Your task to perform on an android device: set default search engine in the chrome app Image 0: 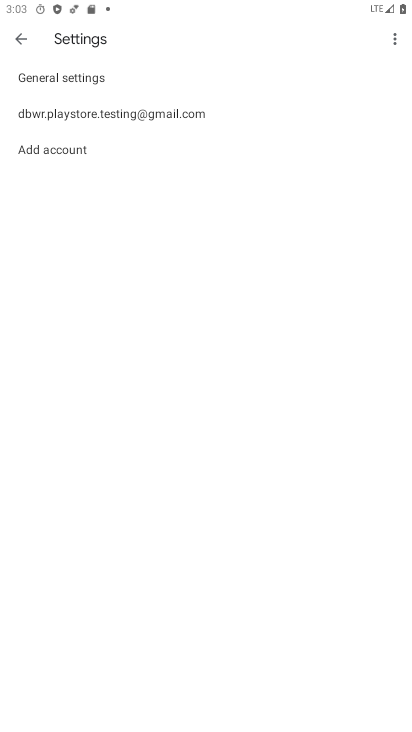
Step 0: drag from (219, 674) to (197, 310)
Your task to perform on an android device: set default search engine in the chrome app Image 1: 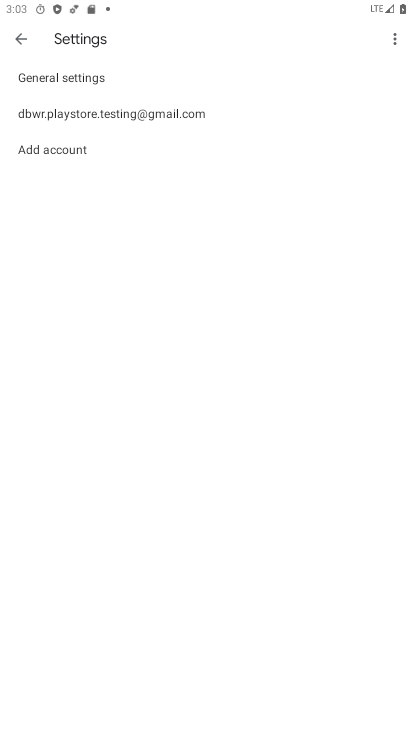
Step 1: press home button
Your task to perform on an android device: set default search engine in the chrome app Image 2: 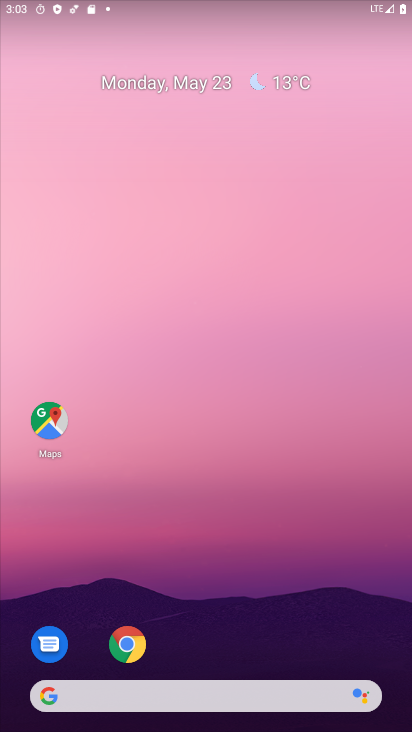
Step 2: click (134, 635)
Your task to perform on an android device: set default search engine in the chrome app Image 3: 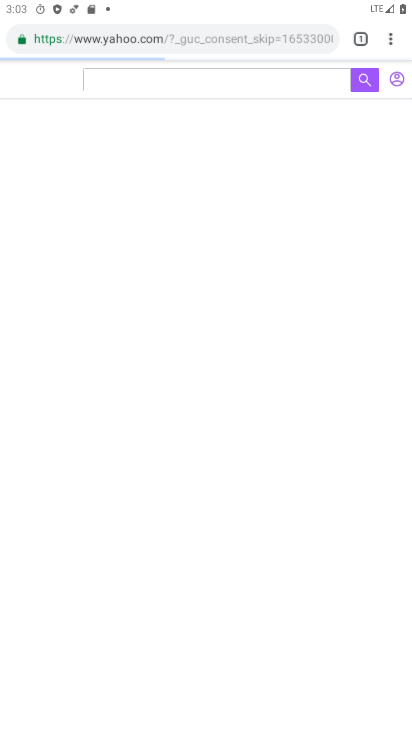
Step 3: click (393, 36)
Your task to perform on an android device: set default search engine in the chrome app Image 4: 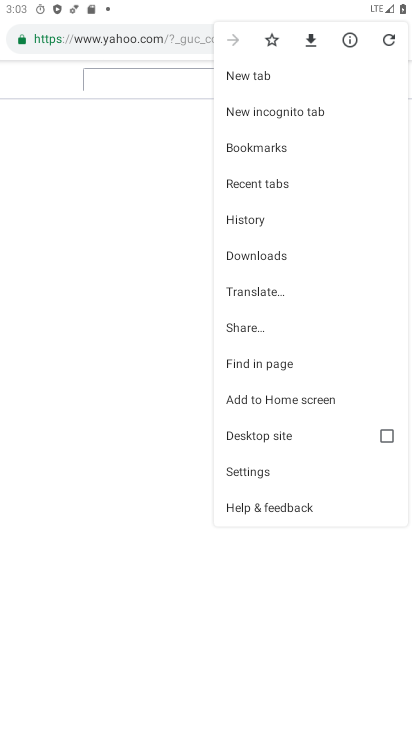
Step 4: click (255, 483)
Your task to perform on an android device: set default search engine in the chrome app Image 5: 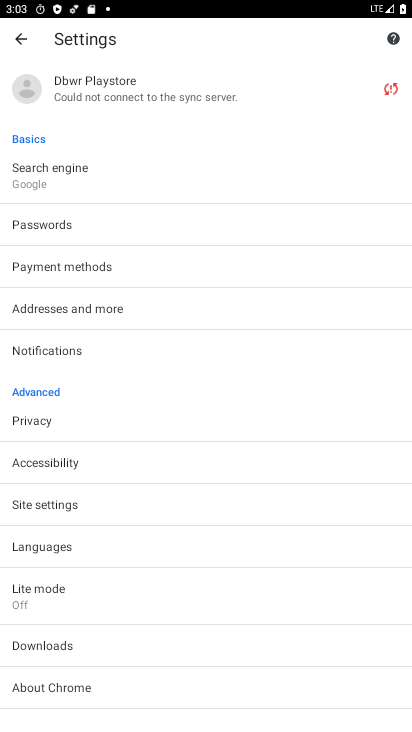
Step 5: click (62, 181)
Your task to perform on an android device: set default search engine in the chrome app Image 6: 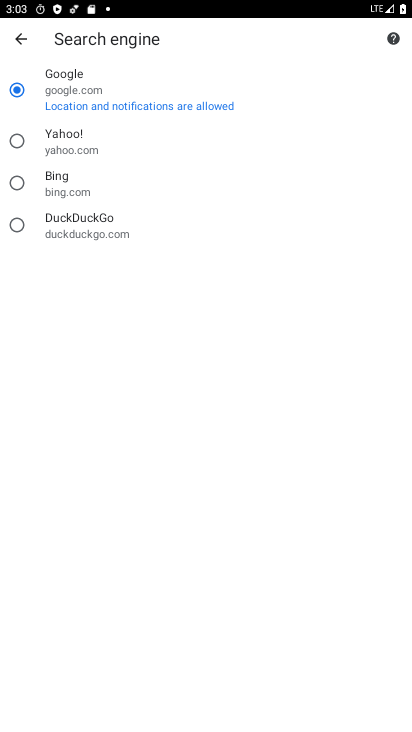
Step 6: click (7, 85)
Your task to perform on an android device: set default search engine in the chrome app Image 7: 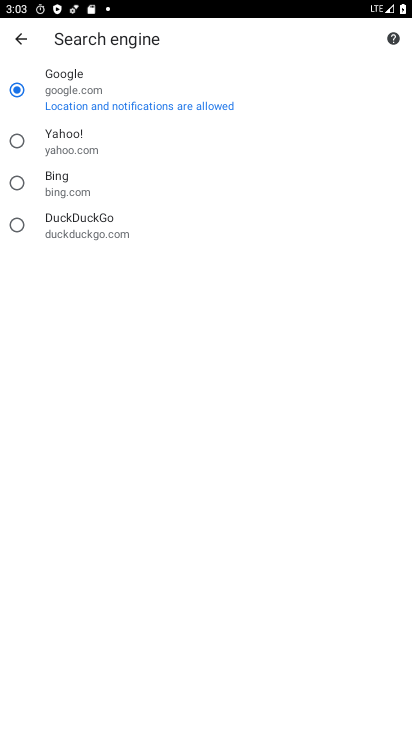
Step 7: task complete